Your task to perform on an android device: delete a single message in the gmail app Image 0: 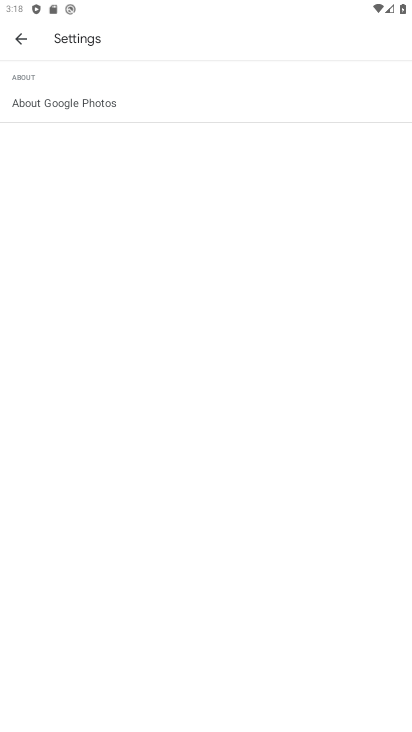
Step 0: press home button
Your task to perform on an android device: delete a single message in the gmail app Image 1: 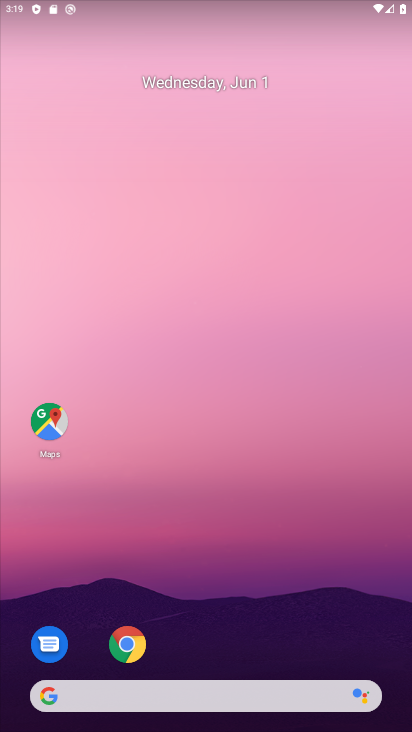
Step 1: drag from (200, 633) to (186, 132)
Your task to perform on an android device: delete a single message in the gmail app Image 2: 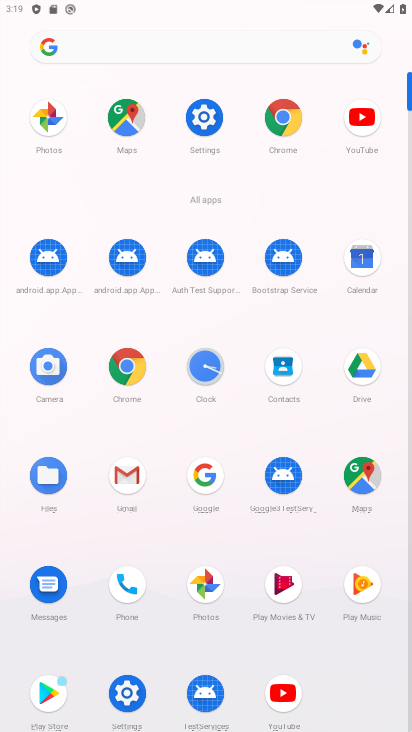
Step 2: click (122, 482)
Your task to perform on an android device: delete a single message in the gmail app Image 3: 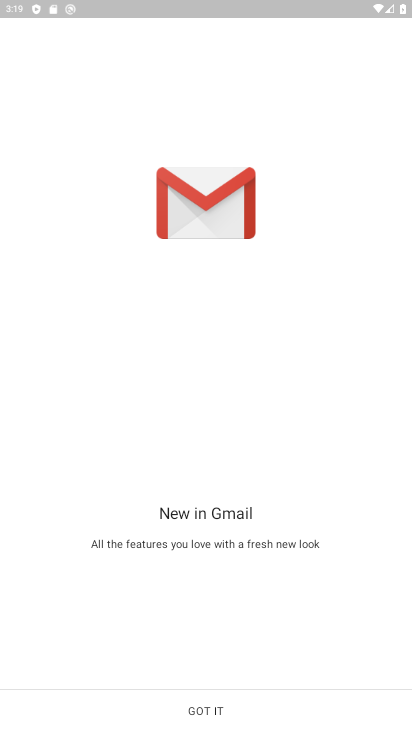
Step 3: click (227, 697)
Your task to perform on an android device: delete a single message in the gmail app Image 4: 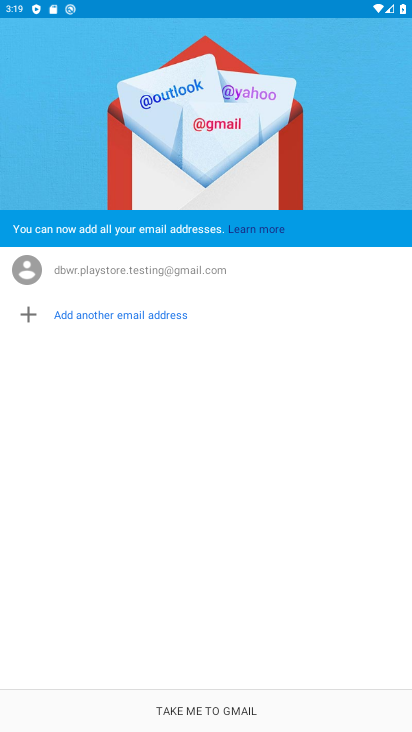
Step 4: click (224, 712)
Your task to perform on an android device: delete a single message in the gmail app Image 5: 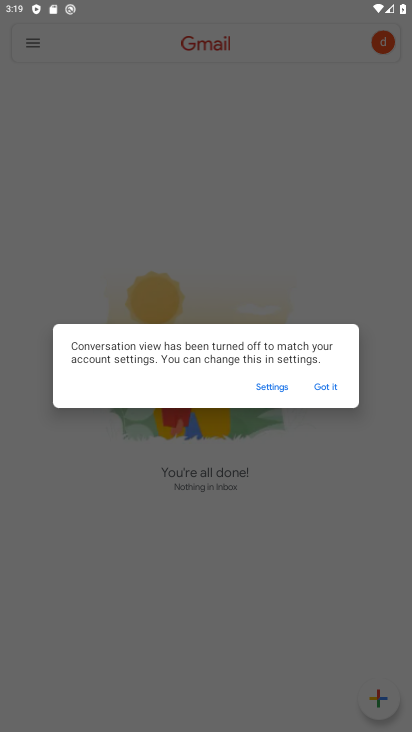
Step 5: click (337, 391)
Your task to perform on an android device: delete a single message in the gmail app Image 6: 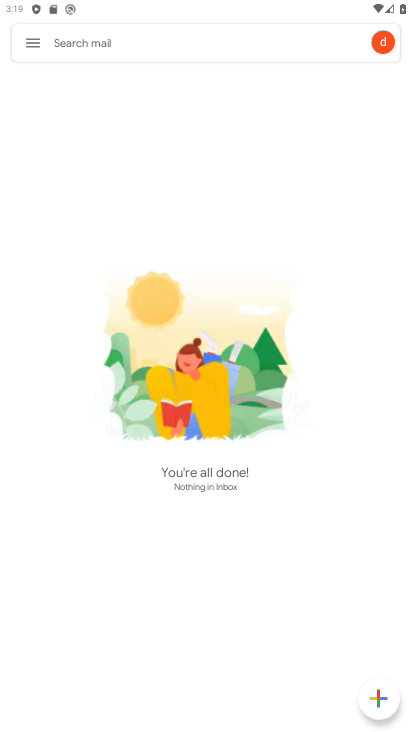
Step 6: task complete